Your task to perform on an android device: clear all cookies in the chrome app Image 0: 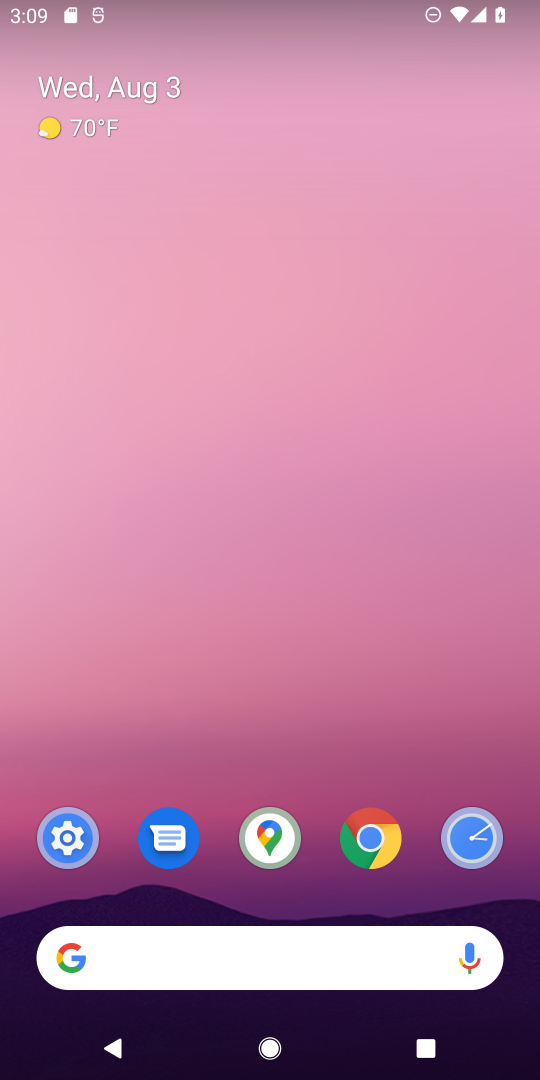
Step 0: click (348, 839)
Your task to perform on an android device: clear all cookies in the chrome app Image 1: 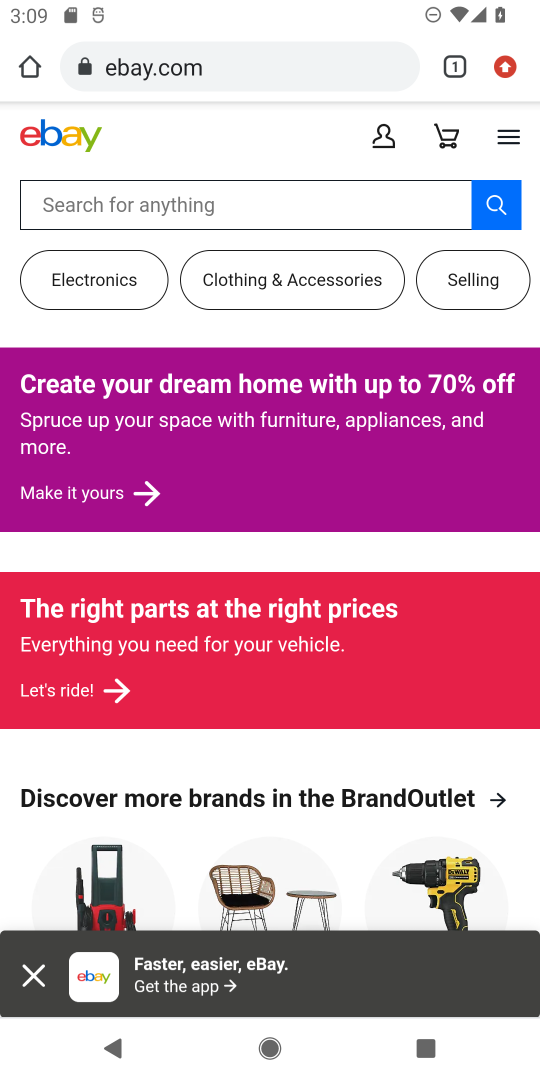
Step 1: click (506, 74)
Your task to perform on an android device: clear all cookies in the chrome app Image 2: 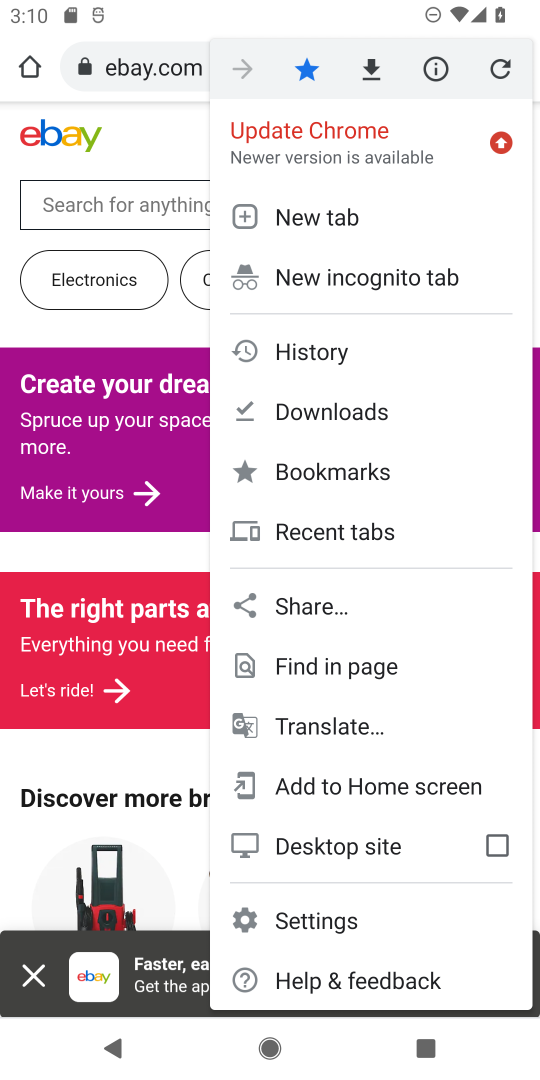
Step 2: click (354, 352)
Your task to perform on an android device: clear all cookies in the chrome app Image 3: 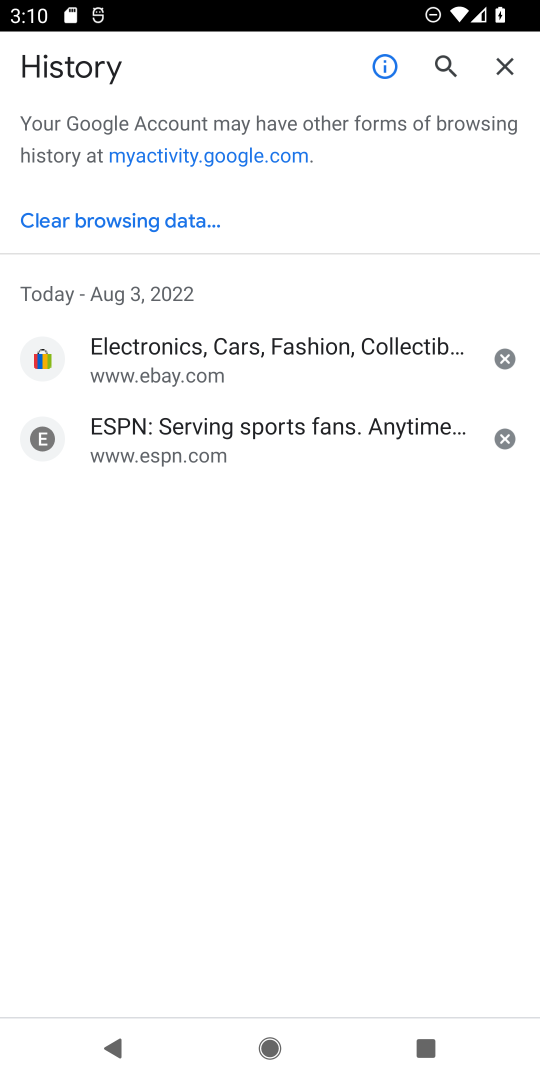
Step 3: click (124, 211)
Your task to perform on an android device: clear all cookies in the chrome app Image 4: 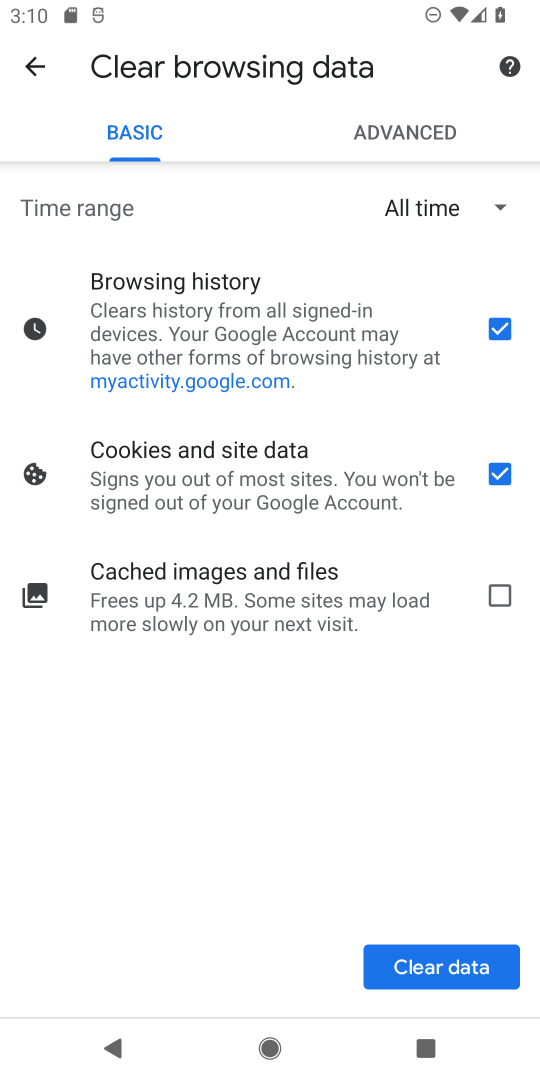
Step 4: click (499, 363)
Your task to perform on an android device: clear all cookies in the chrome app Image 5: 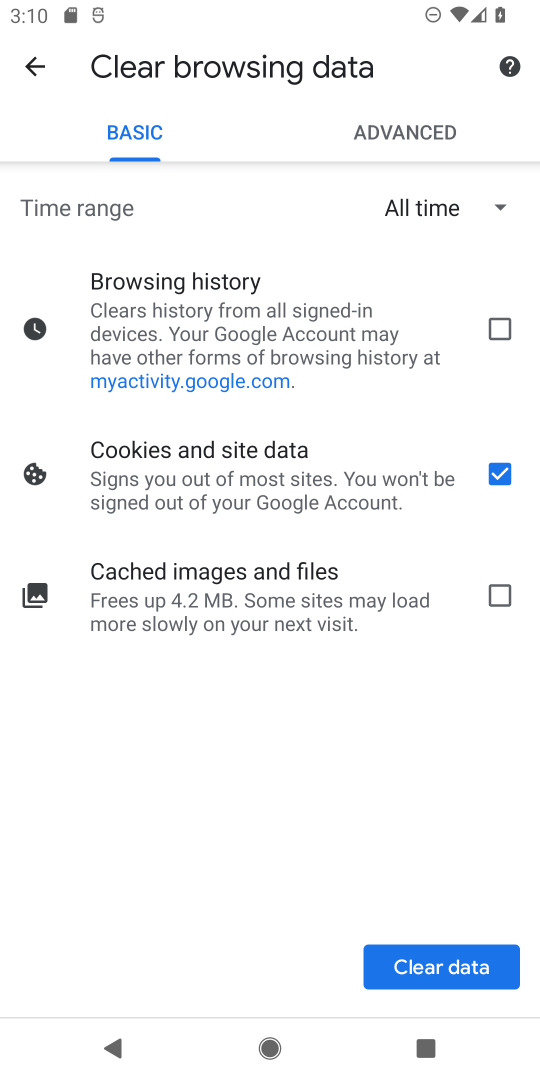
Step 5: click (448, 961)
Your task to perform on an android device: clear all cookies in the chrome app Image 6: 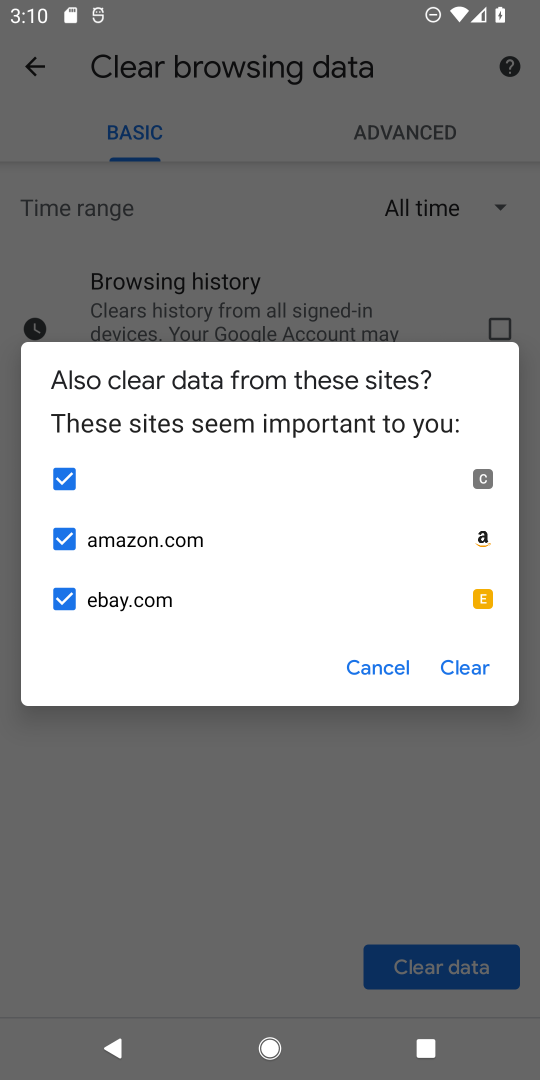
Step 6: click (483, 659)
Your task to perform on an android device: clear all cookies in the chrome app Image 7: 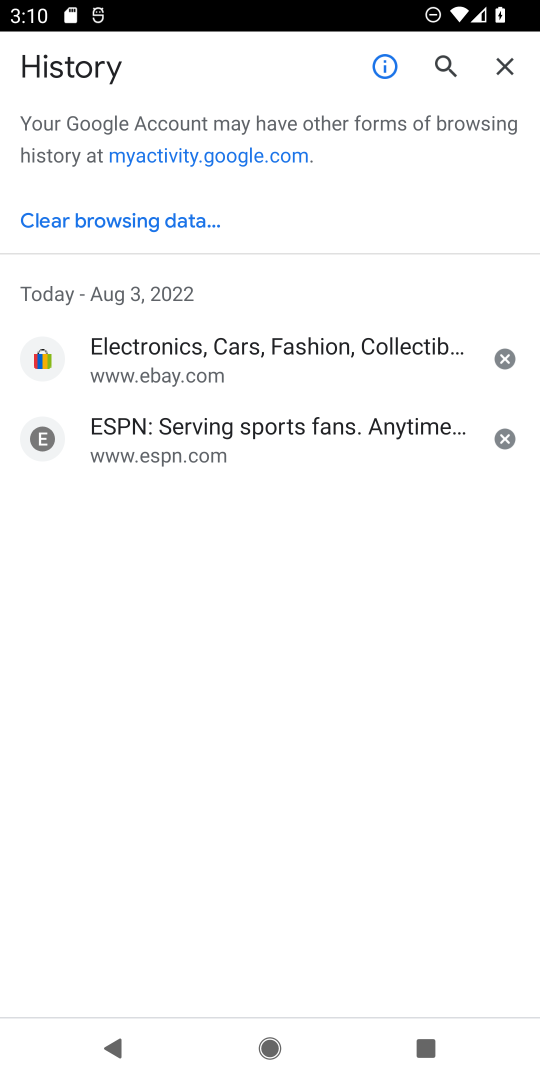
Step 7: task complete